Your task to perform on an android device: toggle data saver in the chrome app Image 0: 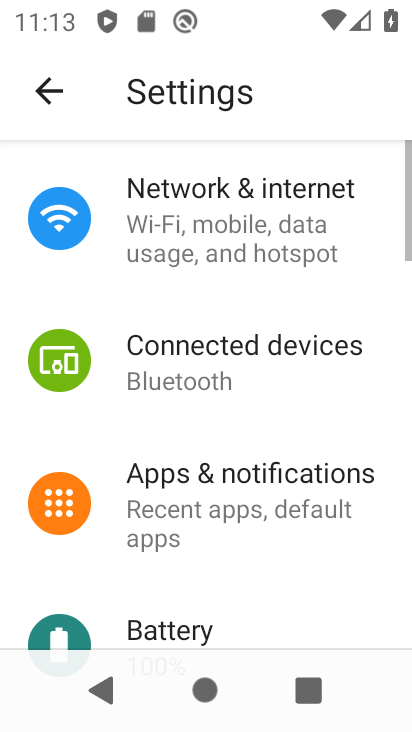
Step 0: press home button
Your task to perform on an android device: toggle data saver in the chrome app Image 1: 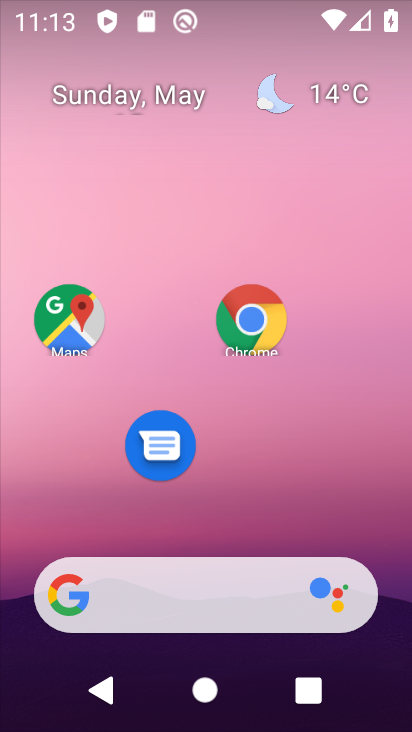
Step 1: drag from (211, 574) to (331, 140)
Your task to perform on an android device: toggle data saver in the chrome app Image 2: 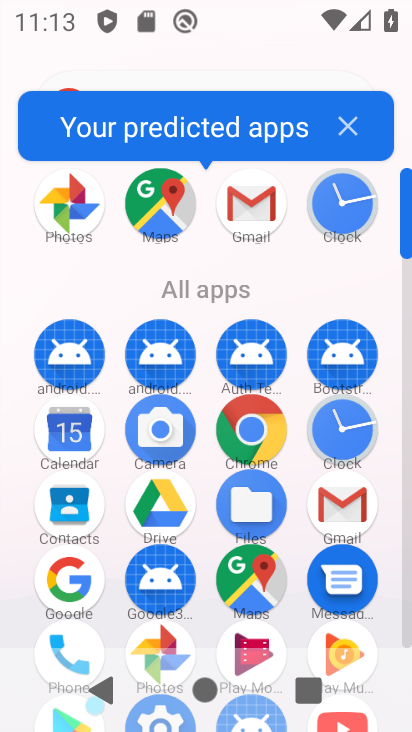
Step 2: click (254, 431)
Your task to perform on an android device: toggle data saver in the chrome app Image 3: 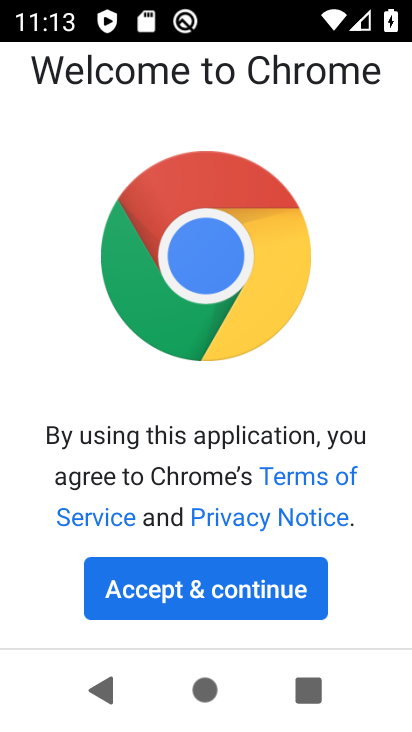
Step 3: click (200, 572)
Your task to perform on an android device: toggle data saver in the chrome app Image 4: 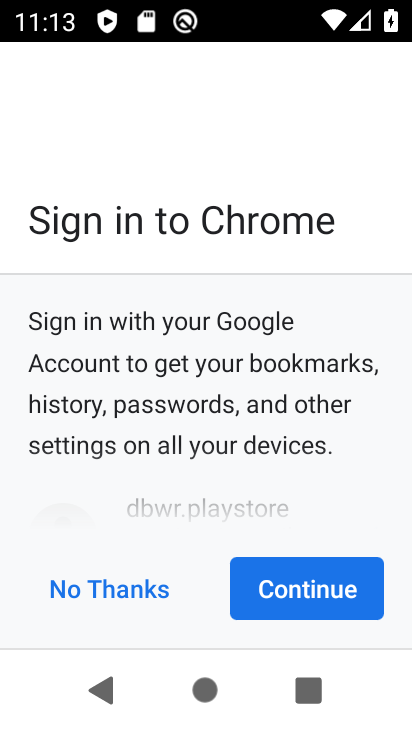
Step 4: click (301, 582)
Your task to perform on an android device: toggle data saver in the chrome app Image 5: 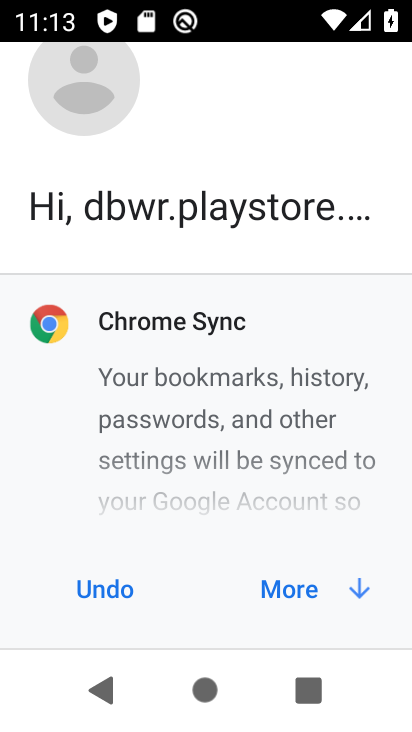
Step 5: click (301, 582)
Your task to perform on an android device: toggle data saver in the chrome app Image 6: 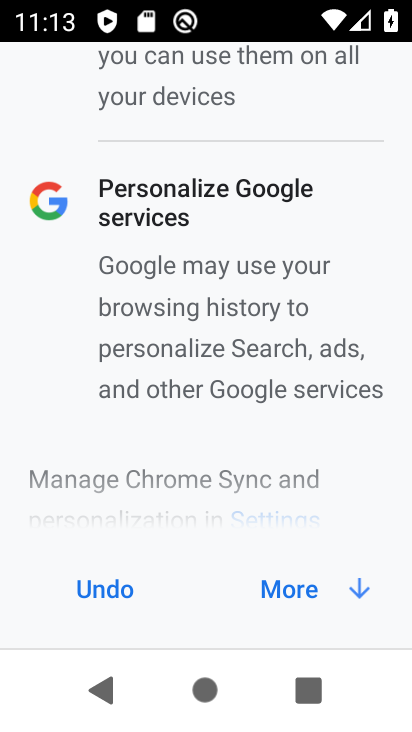
Step 6: click (295, 591)
Your task to perform on an android device: toggle data saver in the chrome app Image 7: 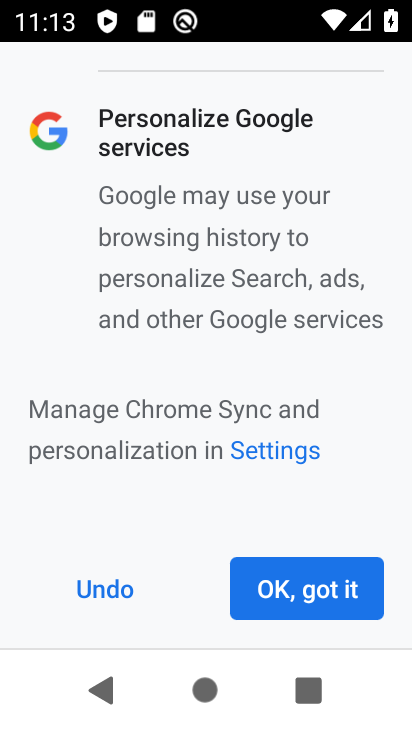
Step 7: click (295, 591)
Your task to perform on an android device: toggle data saver in the chrome app Image 8: 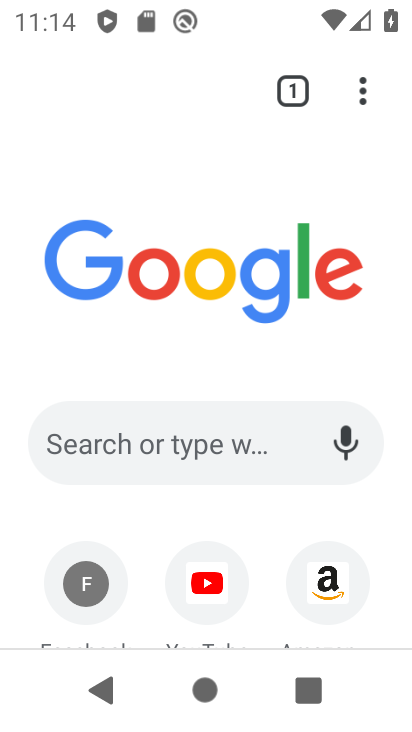
Step 8: drag from (364, 100) to (201, 478)
Your task to perform on an android device: toggle data saver in the chrome app Image 9: 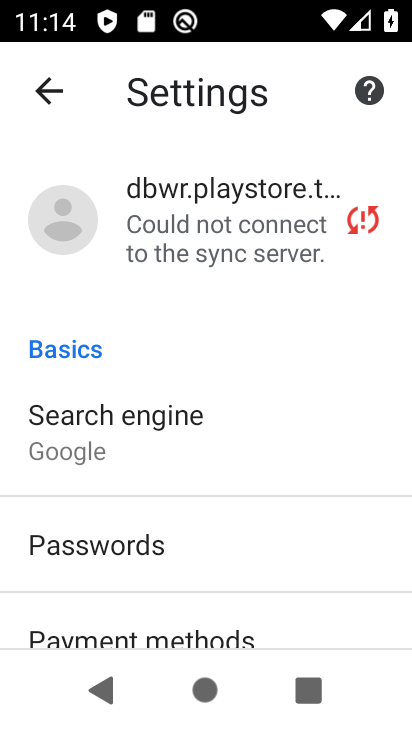
Step 9: drag from (232, 573) to (346, 230)
Your task to perform on an android device: toggle data saver in the chrome app Image 10: 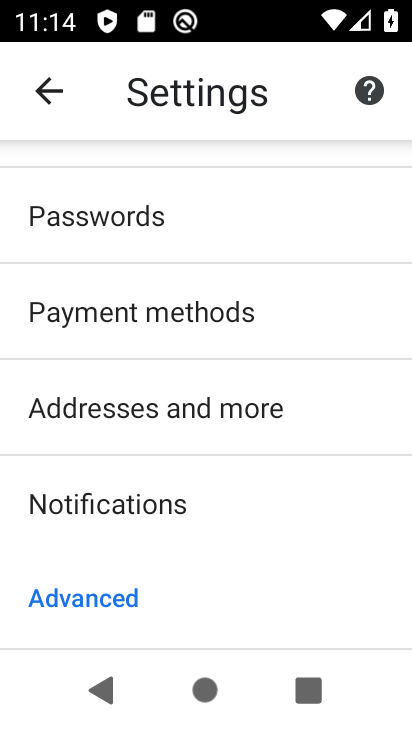
Step 10: drag from (236, 563) to (382, 74)
Your task to perform on an android device: toggle data saver in the chrome app Image 11: 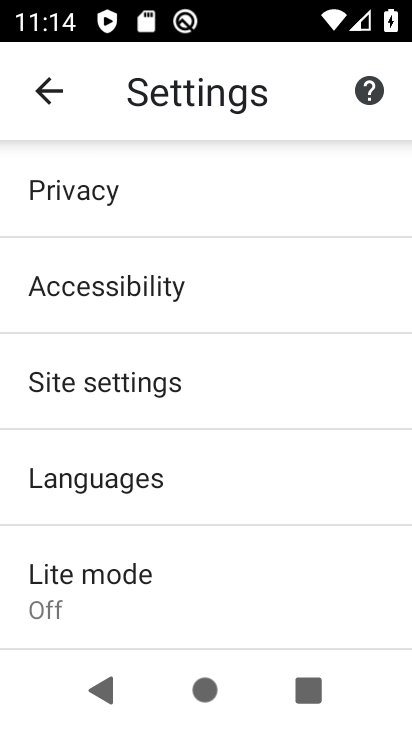
Step 11: click (80, 579)
Your task to perform on an android device: toggle data saver in the chrome app Image 12: 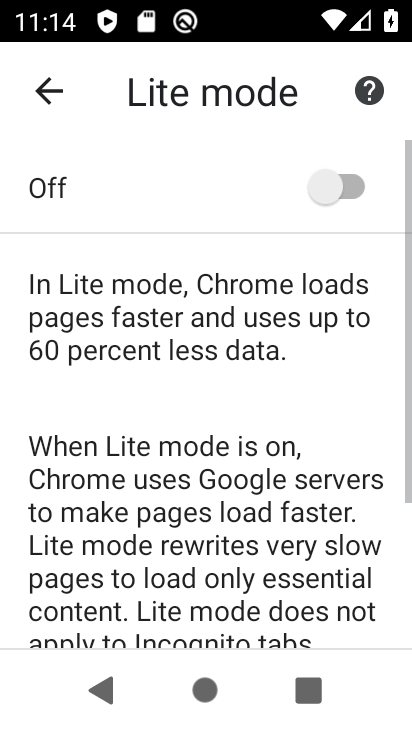
Step 12: click (348, 188)
Your task to perform on an android device: toggle data saver in the chrome app Image 13: 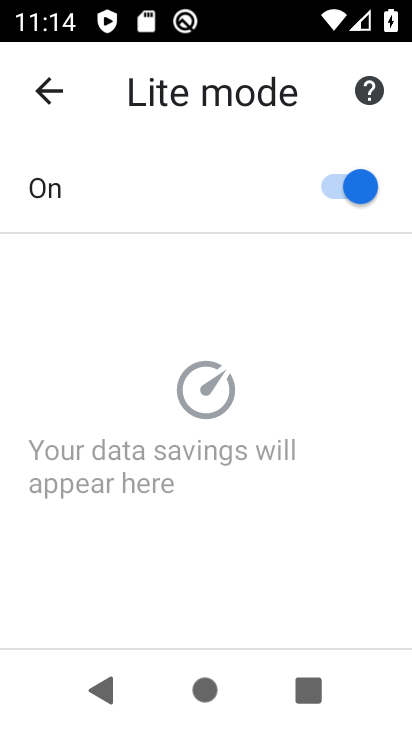
Step 13: task complete